Your task to perform on an android device: change the upload size in google photos Image 0: 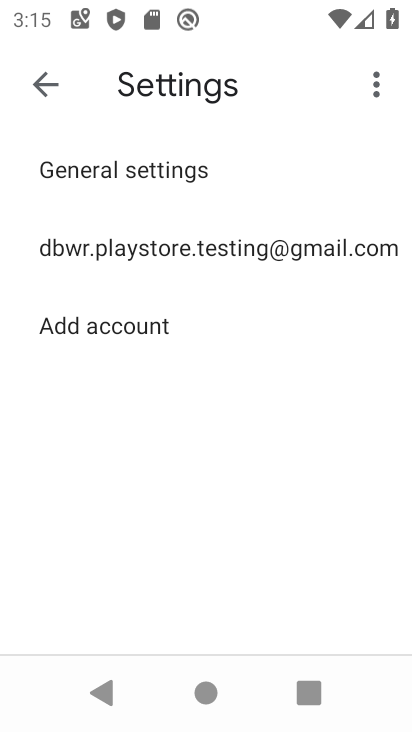
Step 0: press home button
Your task to perform on an android device: change the upload size in google photos Image 1: 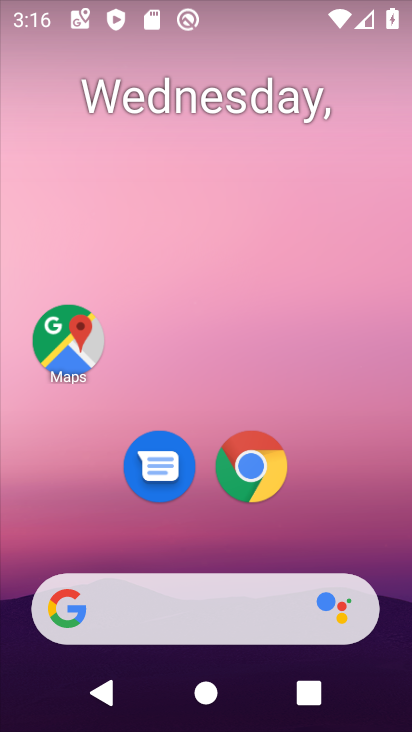
Step 1: drag from (204, 551) to (186, 13)
Your task to perform on an android device: change the upload size in google photos Image 2: 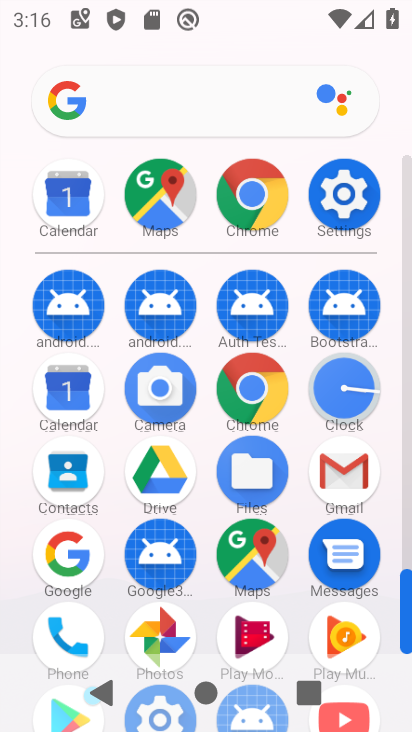
Step 2: click (150, 640)
Your task to perform on an android device: change the upload size in google photos Image 3: 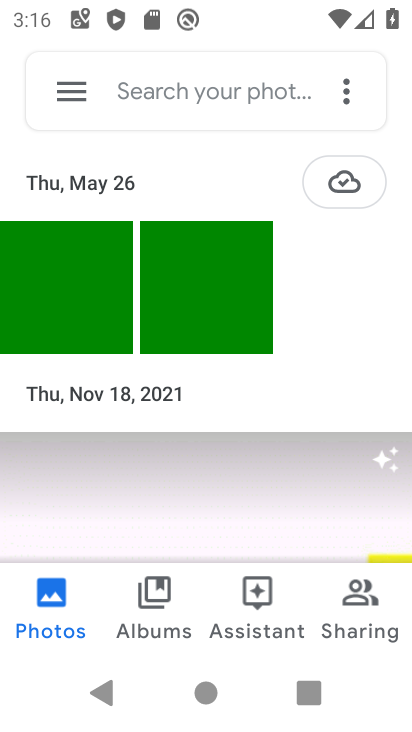
Step 3: click (62, 97)
Your task to perform on an android device: change the upload size in google photos Image 4: 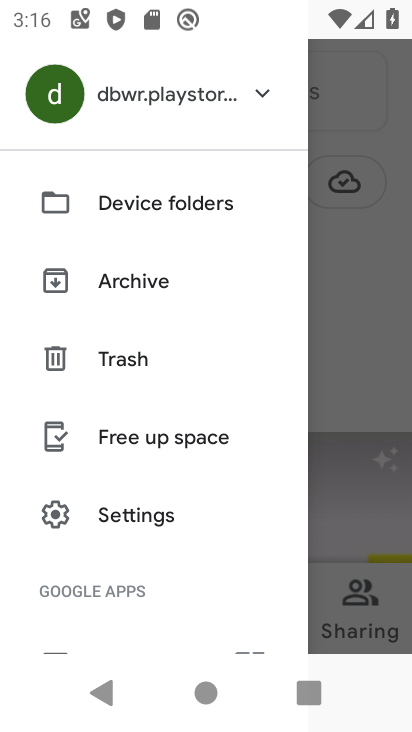
Step 4: drag from (154, 476) to (117, 318)
Your task to perform on an android device: change the upload size in google photos Image 5: 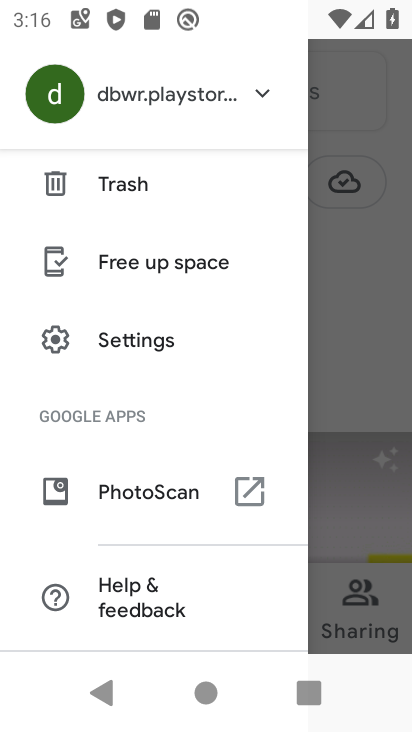
Step 5: click (115, 345)
Your task to perform on an android device: change the upload size in google photos Image 6: 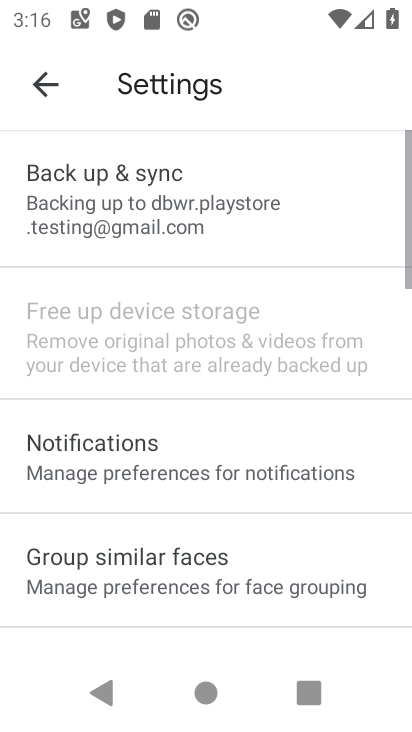
Step 6: click (156, 192)
Your task to perform on an android device: change the upload size in google photos Image 7: 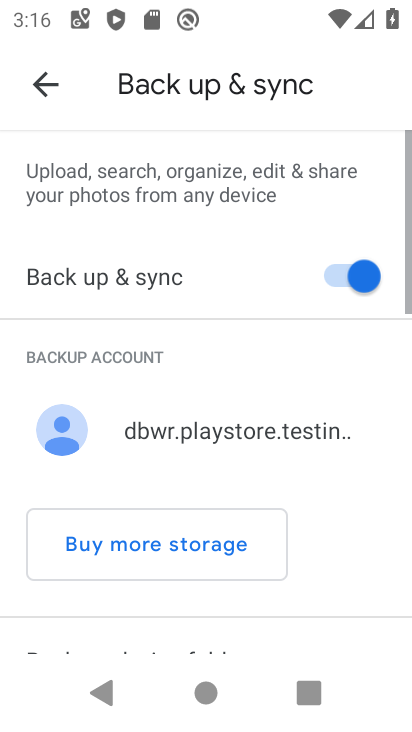
Step 7: drag from (154, 424) to (123, 57)
Your task to perform on an android device: change the upload size in google photos Image 8: 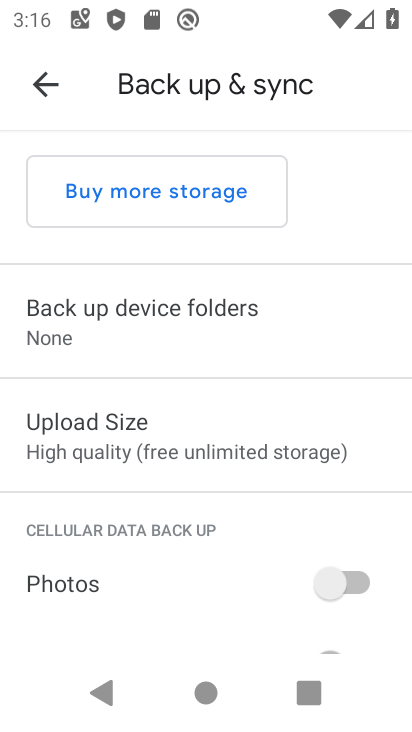
Step 8: click (171, 446)
Your task to perform on an android device: change the upload size in google photos Image 9: 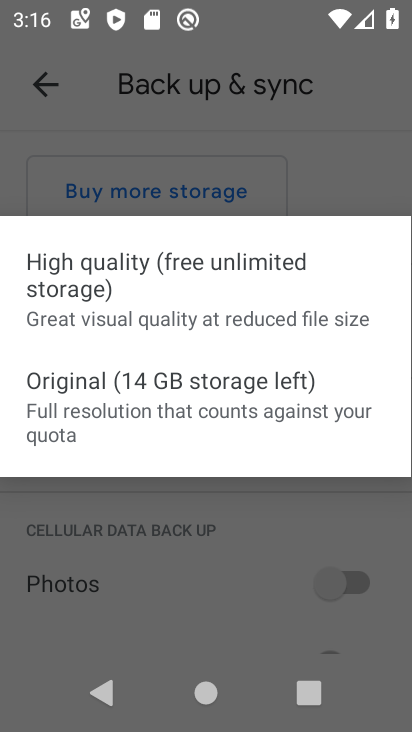
Step 9: click (189, 387)
Your task to perform on an android device: change the upload size in google photos Image 10: 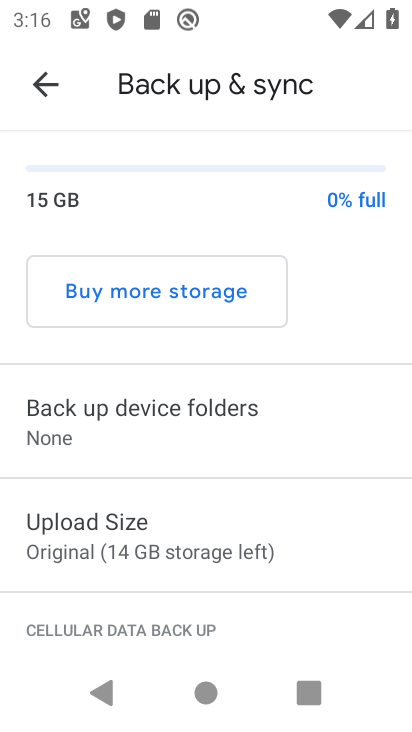
Step 10: task complete